Your task to perform on an android device: turn on bluetooth scan Image 0: 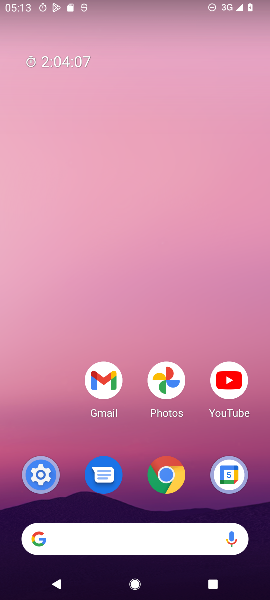
Step 0: press home button
Your task to perform on an android device: turn on bluetooth scan Image 1: 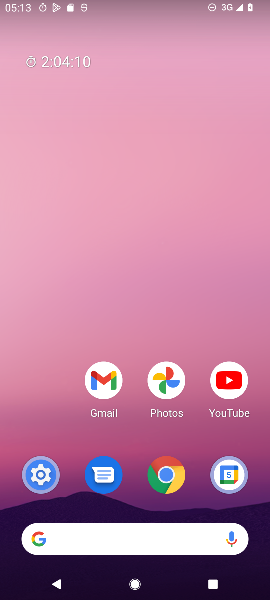
Step 1: drag from (64, 432) to (48, 210)
Your task to perform on an android device: turn on bluetooth scan Image 2: 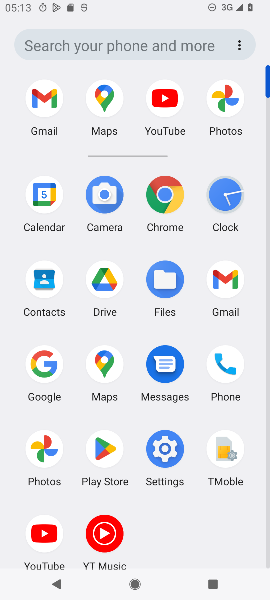
Step 2: click (165, 444)
Your task to perform on an android device: turn on bluetooth scan Image 3: 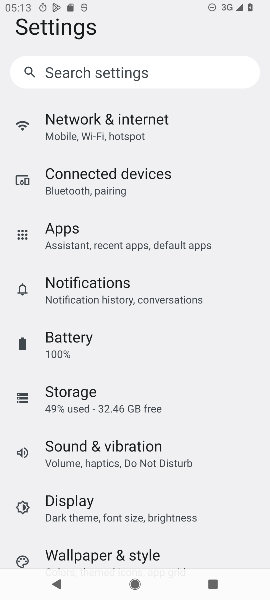
Step 3: drag from (222, 389) to (221, 311)
Your task to perform on an android device: turn on bluetooth scan Image 4: 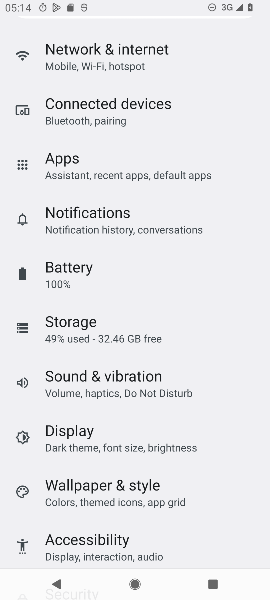
Step 4: drag from (224, 407) to (223, 321)
Your task to perform on an android device: turn on bluetooth scan Image 5: 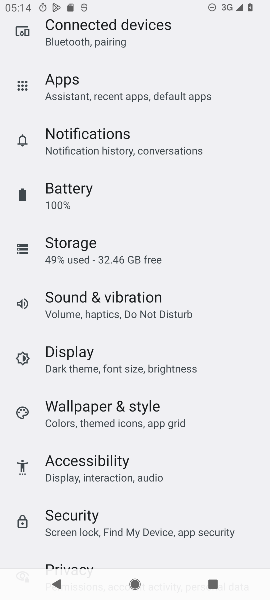
Step 5: drag from (226, 401) to (219, 314)
Your task to perform on an android device: turn on bluetooth scan Image 6: 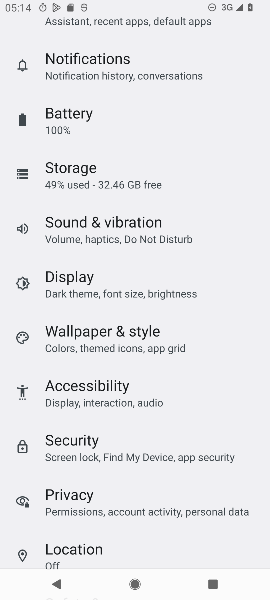
Step 6: drag from (218, 407) to (221, 315)
Your task to perform on an android device: turn on bluetooth scan Image 7: 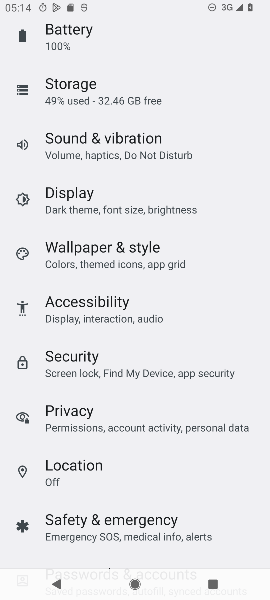
Step 7: drag from (223, 436) to (223, 335)
Your task to perform on an android device: turn on bluetooth scan Image 8: 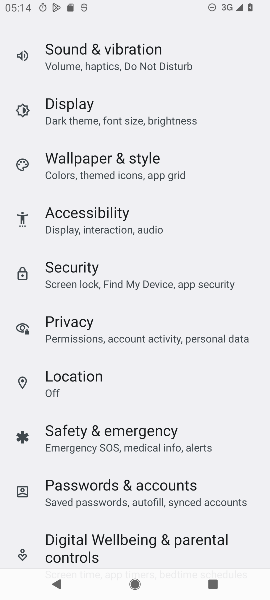
Step 8: drag from (224, 190) to (216, 299)
Your task to perform on an android device: turn on bluetooth scan Image 9: 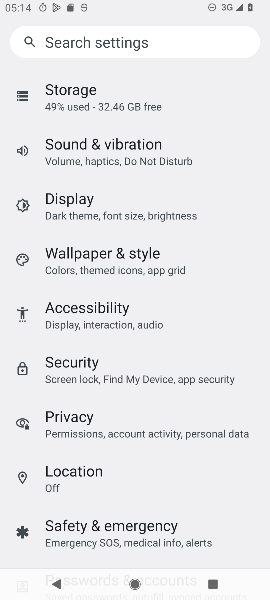
Step 9: drag from (222, 154) to (226, 258)
Your task to perform on an android device: turn on bluetooth scan Image 10: 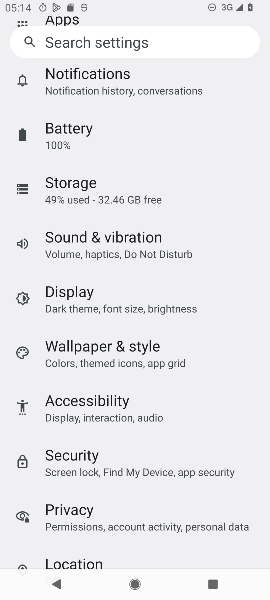
Step 10: drag from (224, 147) to (226, 245)
Your task to perform on an android device: turn on bluetooth scan Image 11: 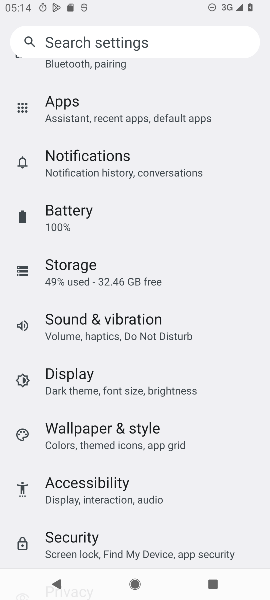
Step 11: drag from (226, 153) to (226, 293)
Your task to perform on an android device: turn on bluetooth scan Image 12: 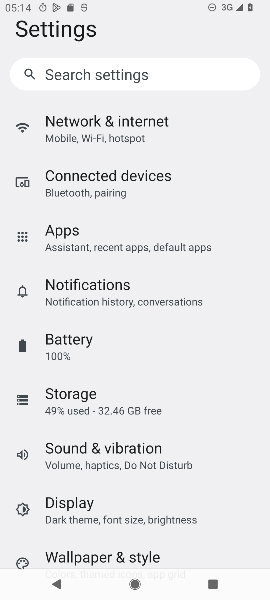
Step 12: drag from (232, 350) to (221, 264)
Your task to perform on an android device: turn on bluetooth scan Image 13: 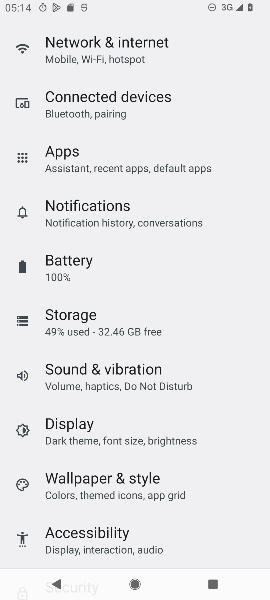
Step 13: drag from (224, 358) to (222, 291)
Your task to perform on an android device: turn on bluetooth scan Image 14: 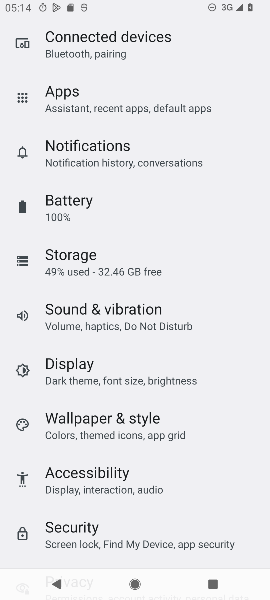
Step 14: drag from (223, 393) to (223, 286)
Your task to perform on an android device: turn on bluetooth scan Image 15: 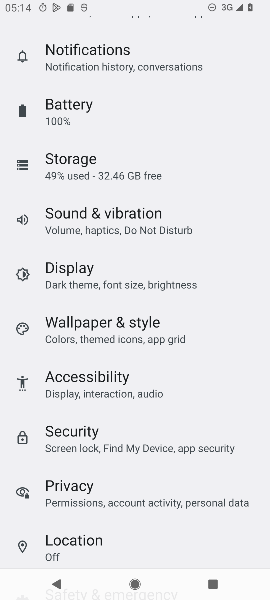
Step 15: drag from (229, 366) to (218, 281)
Your task to perform on an android device: turn on bluetooth scan Image 16: 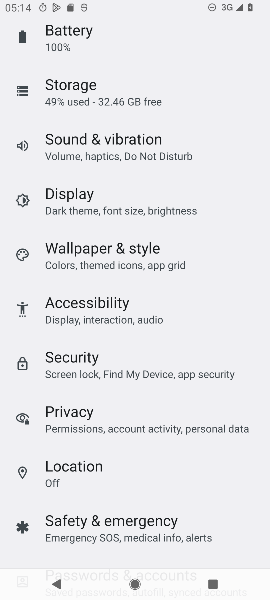
Step 16: drag from (214, 437) to (215, 328)
Your task to perform on an android device: turn on bluetooth scan Image 17: 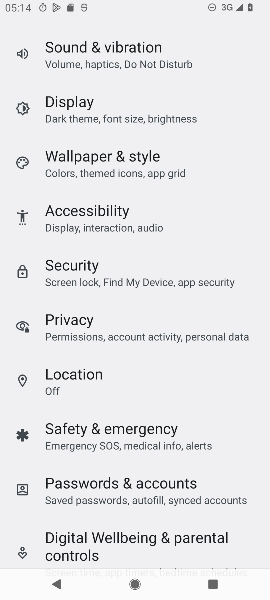
Step 17: click (183, 381)
Your task to perform on an android device: turn on bluetooth scan Image 18: 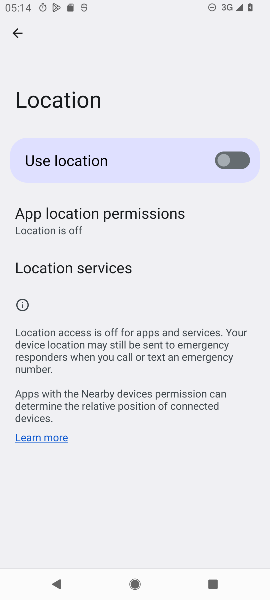
Step 18: click (113, 271)
Your task to perform on an android device: turn on bluetooth scan Image 19: 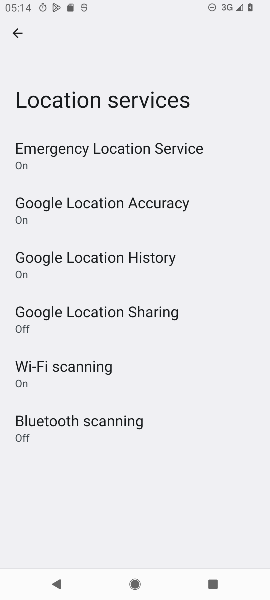
Step 19: click (85, 424)
Your task to perform on an android device: turn on bluetooth scan Image 20: 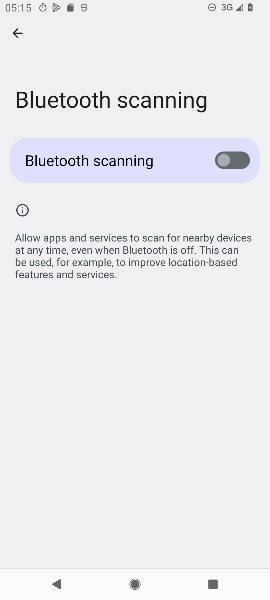
Step 20: click (225, 160)
Your task to perform on an android device: turn on bluetooth scan Image 21: 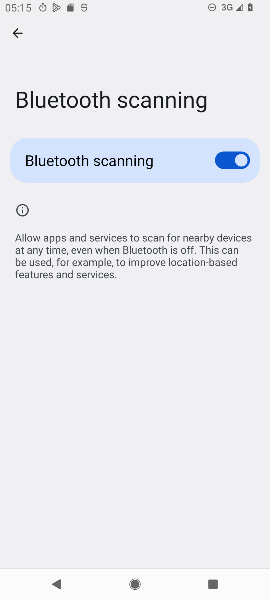
Step 21: task complete